Your task to perform on an android device: Show me recent news Image 0: 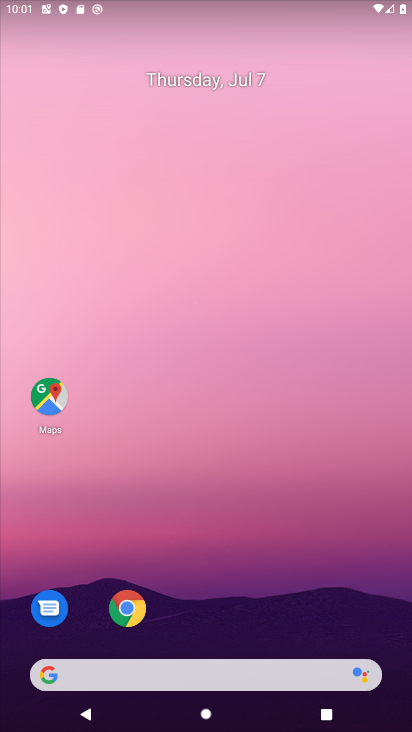
Step 0: drag from (212, 628) to (240, 32)
Your task to perform on an android device: Show me recent news Image 1: 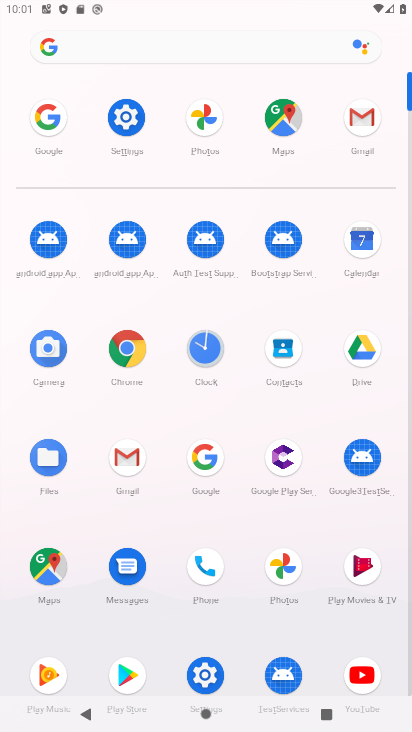
Step 1: click (205, 454)
Your task to perform on an android device: Show me recent news Image 2: 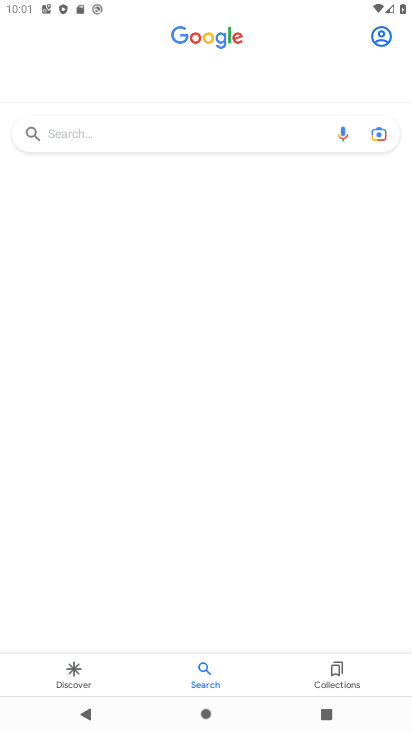
Step 2: click (155, 133)
Your task to perform on an android device: Show me recent news Image 3: 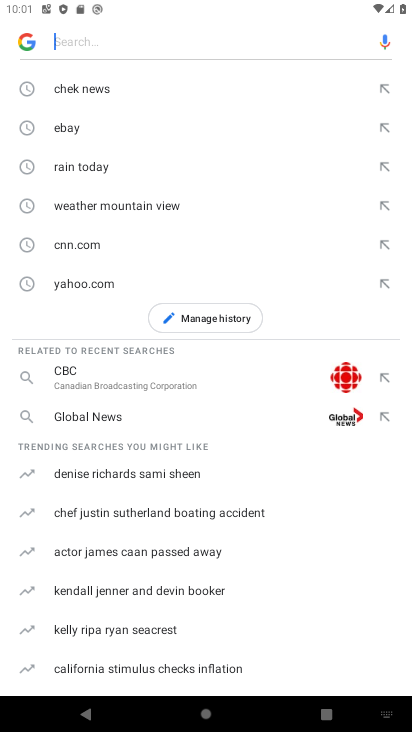
Step 3: type "recent news"
Your task to perform on an android device: Show me recent news Image 4: 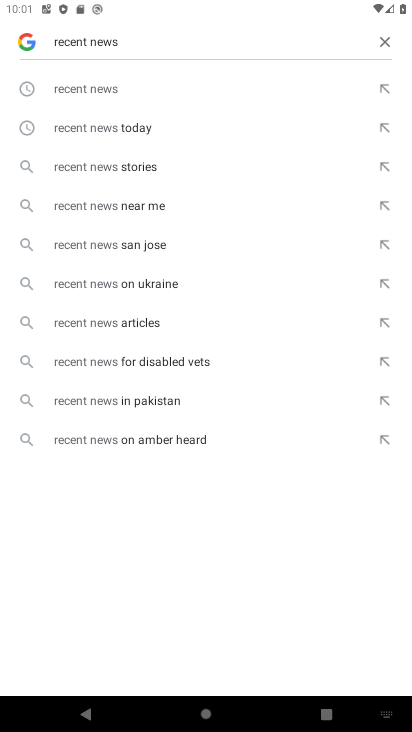
Step 4: click (126, 92)
Your task to perform on an android device: Show me recent news Image 5: 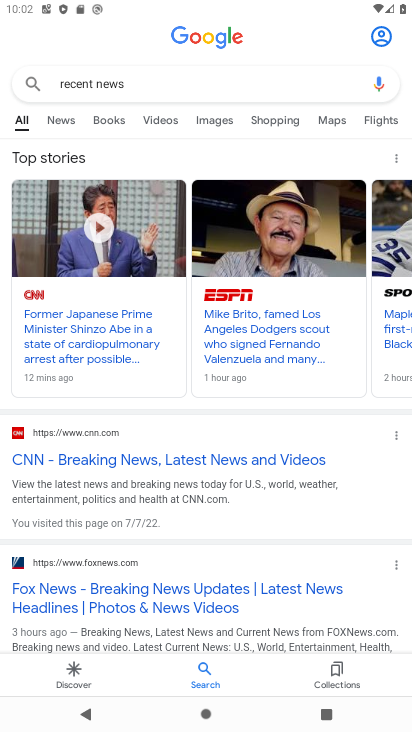
Step 5: task complete